Your task to perform on an android device: Open Yahoo.com Image 0: 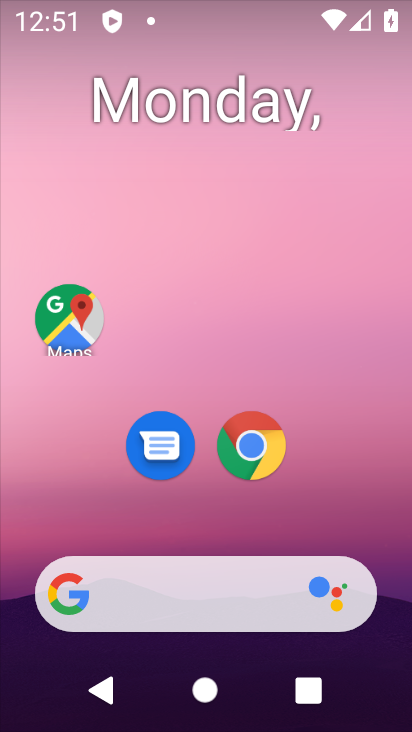
Step 0: click (247, 452)
Your task to perform on an android device: Open Yahoo.com Image 1: 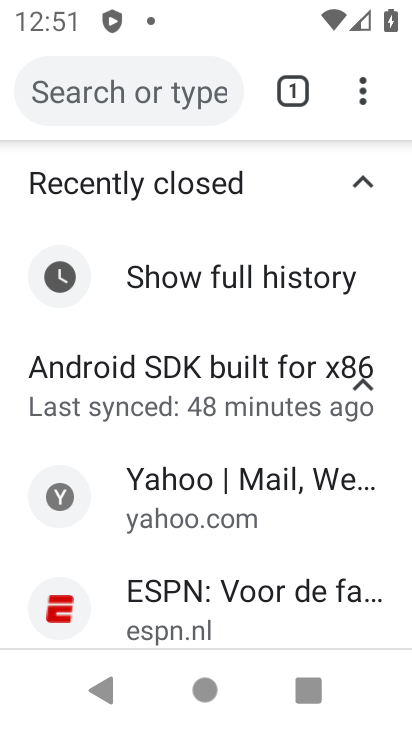
Step 1: click (162, 99)
Your task to perform on an android device: Open Yahoo.com Image 2: 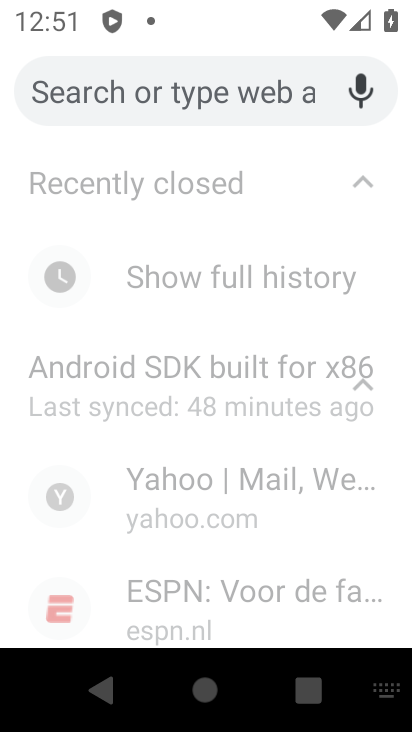
Step 2: type "yahoo.com"
Your task to perform on an android device: Open Yahoo.com Image 3: 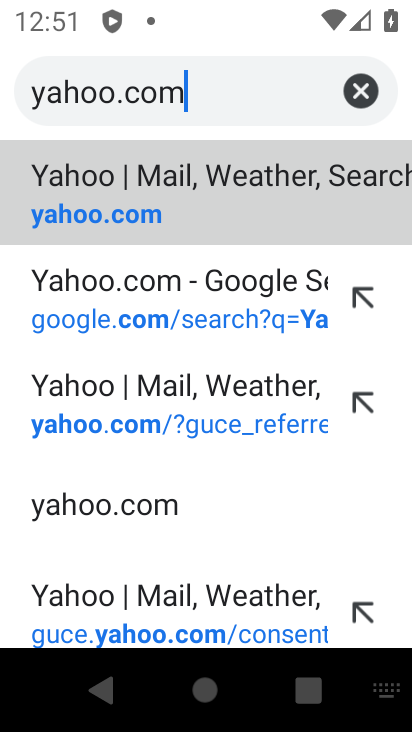
Step 3: click (146, 179)
Your task to perform on an android device: Open Yahoo.com Image 4: 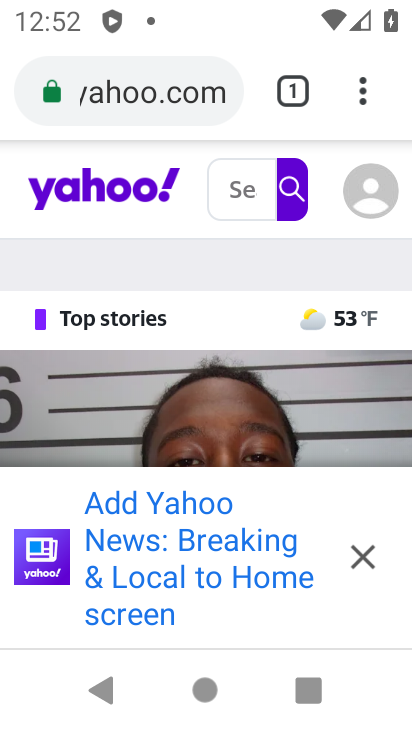
Step 4: task complete